Your task to perform on an android device: What is the recent news? Image 0: 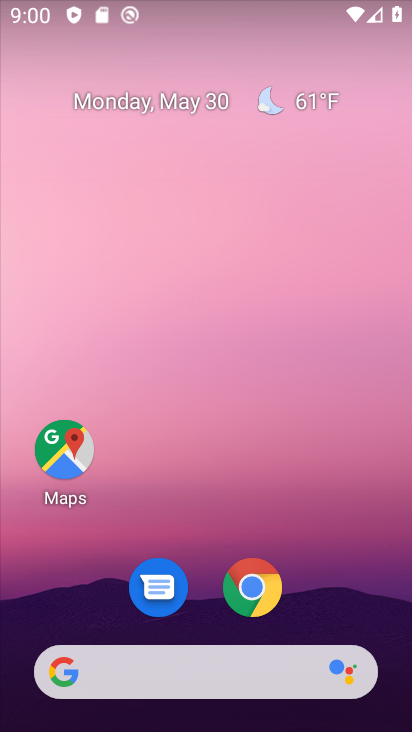
Step 0: click (192, 650)
Your task to perform on an android device: What is the recent news? Image 1: 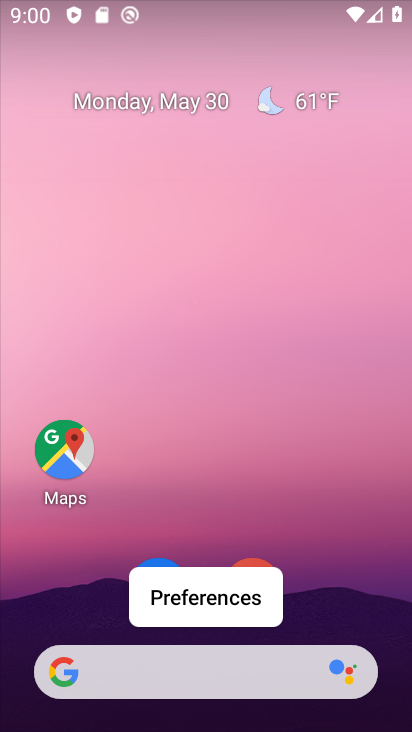
Step 1: click (265, 651)
Your task to perform on an android device: What is the recent news? Image 2: 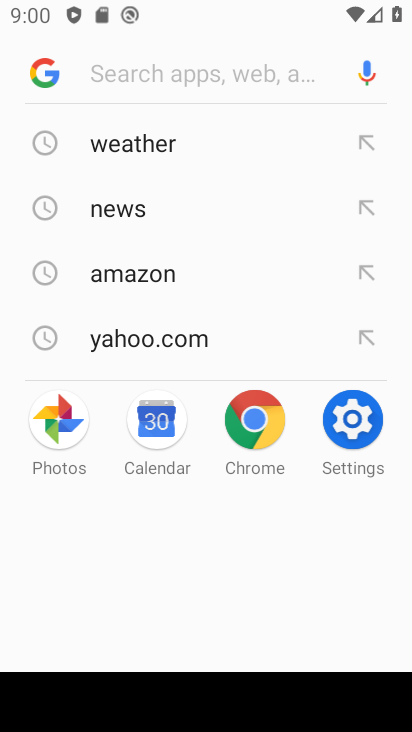
Step 2: click (154, 212)
Your task to perform on an android device: What is the recent news? Image 3: 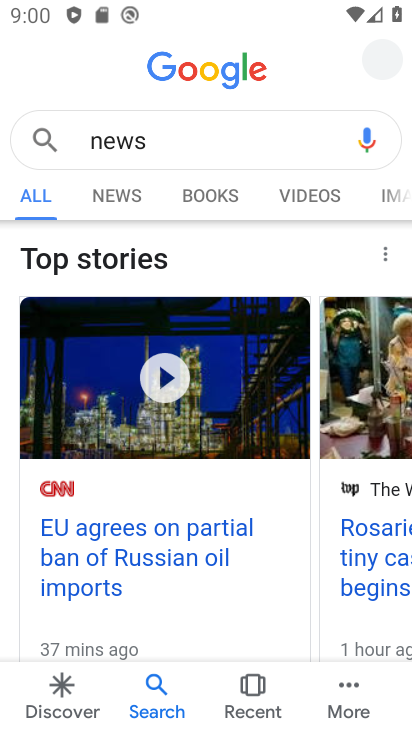
Step 3: click (56, 204)
Your task to perform on an android device: What is the recent news? Image 4: 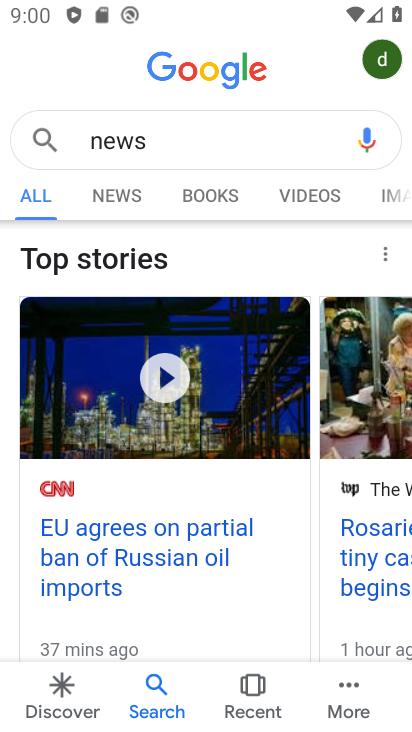
Step 4: click (94, 200)
Your task to perform on an android device: What is the recent news? Image 5: 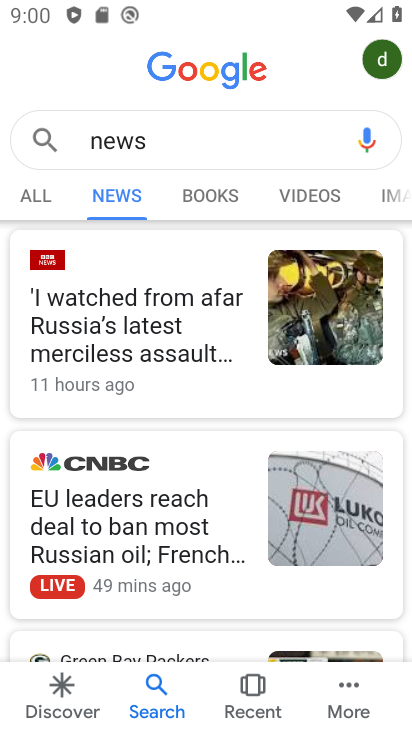
Step 5: task complete